Your task to perform on an android device: Go to location settings Image 0: 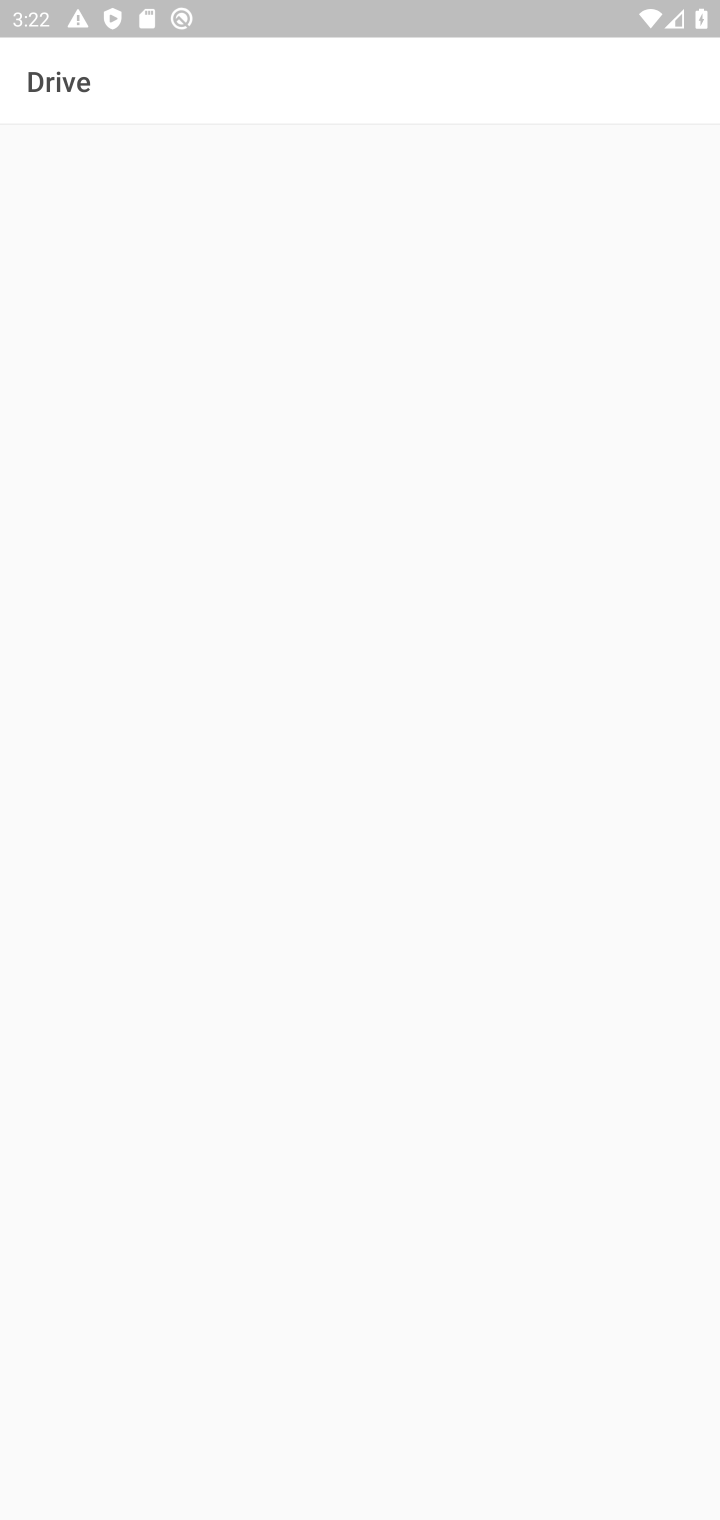
Step 0: task complete